Your task to perform on an android device: turn pop-ups off in chrome Image 0: 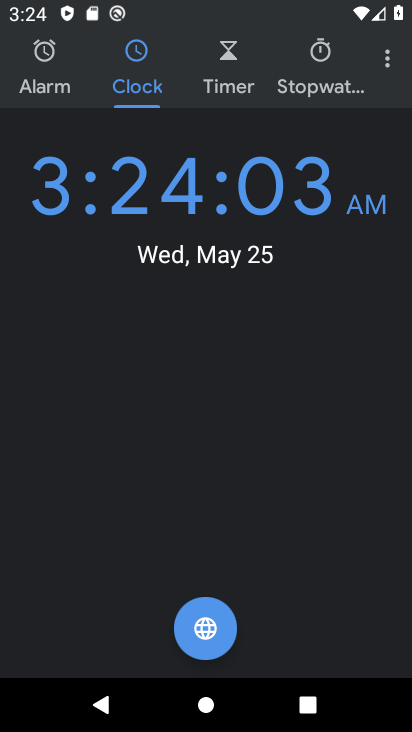
Step 0: press home button
Your task to perform on an android device: turn pop-ups off in chrome Image 1: 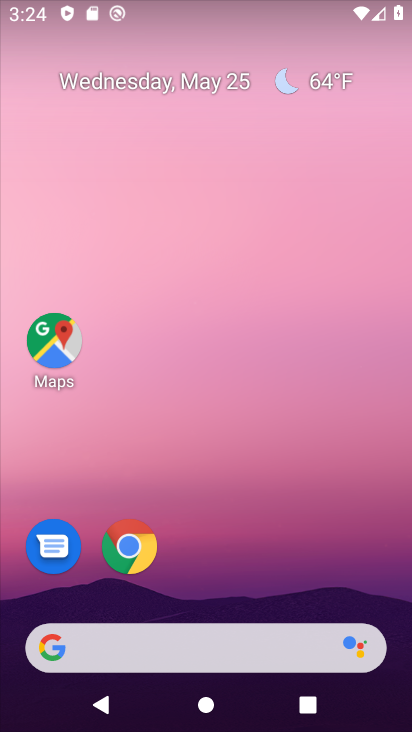
Step 1: click (139, 530)
Your task to perform on an android device: turn pop-ups off in chrome Image 2: 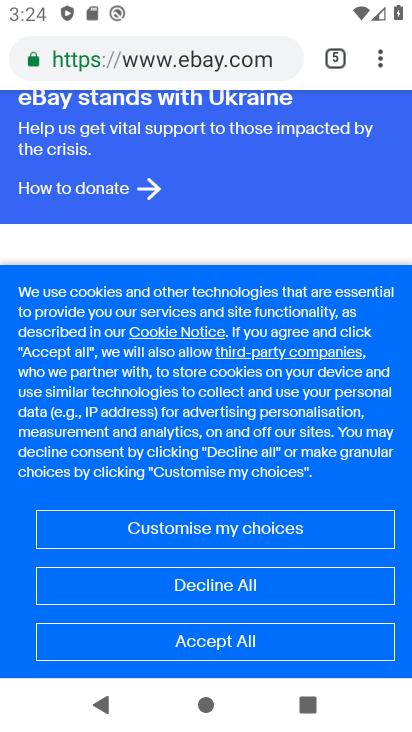
Step 2: click (379, 54)
Your task to perform on an android device: turn pop-ups off in chrome Image 3: 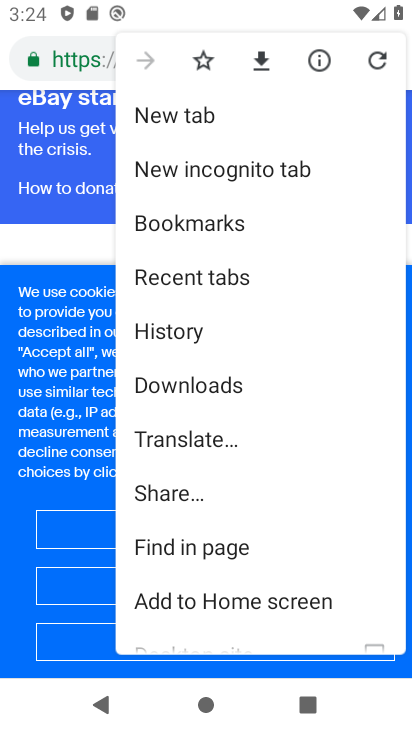
Step 3: drag from (335, 594) to (265, 153)
Your task to perform on an android device: turn pop-ups off in chrome Image 4: 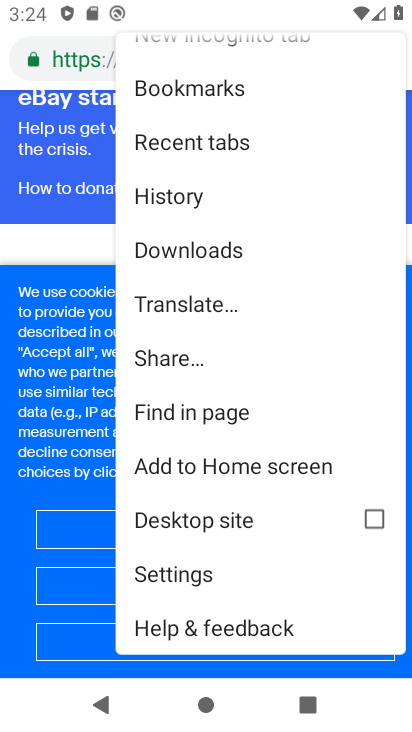
Step 4: click (205, 583)
Your task to perform on an android device: turn pop-ups off in chrome Image 5: 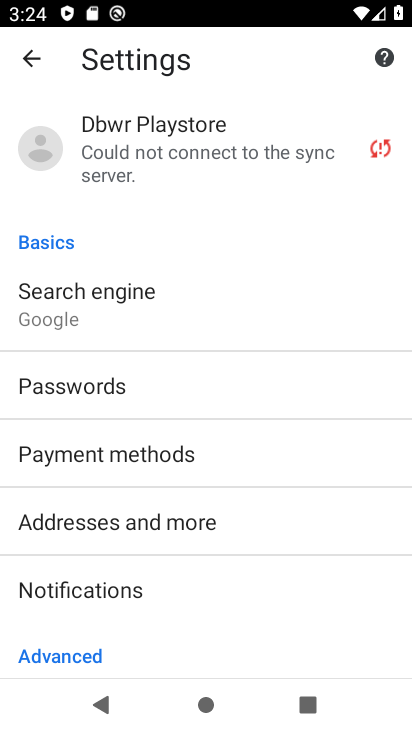
Step 5: drag from (189, 616) to (150, 258)
Your task to perform on an android device: turn pop-ups off in chrome Image 6: 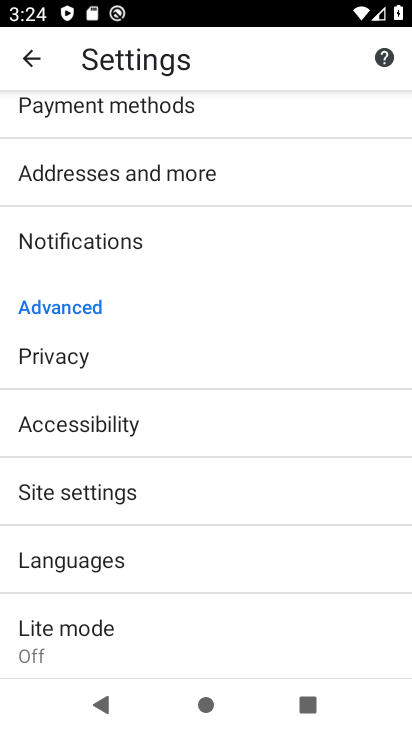
Step 6: click (63, 483)
Your task to perform on an android device: turn pop-ups off in chrome Image 7: 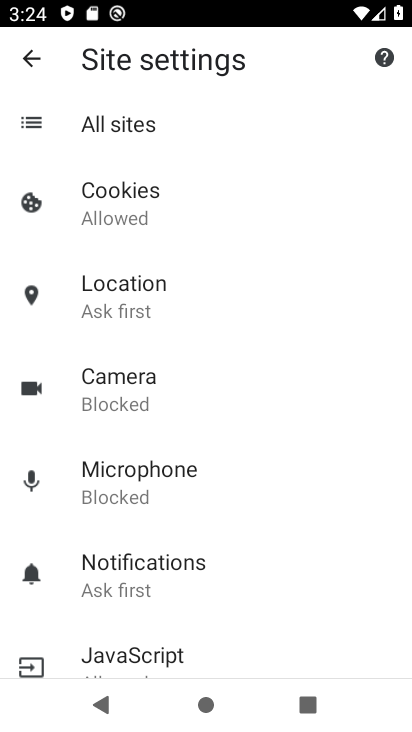
Step 7: drag from (257, 613) to (229, 305)
Your task to perform on an android device: turn pop-ups off in chrome Image 8: 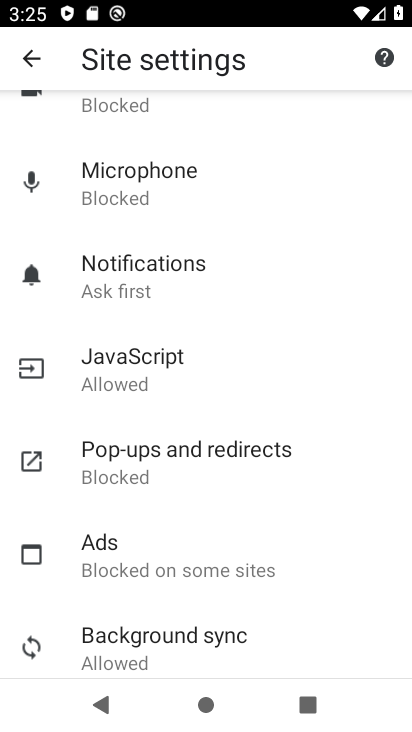
Step 8: click (181, 480)
Your task to perform on an android device: turn pop-ups off in chrome Image 9: 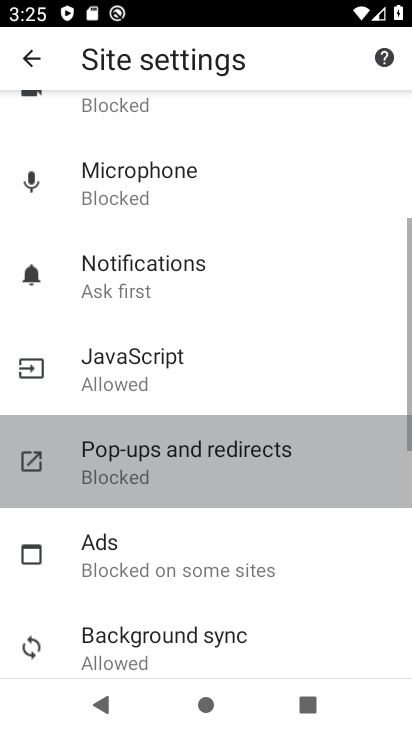
Step 9: click (181, 480)
Your task to perform on an android device: turn pop-ups off in chrome Image 10: 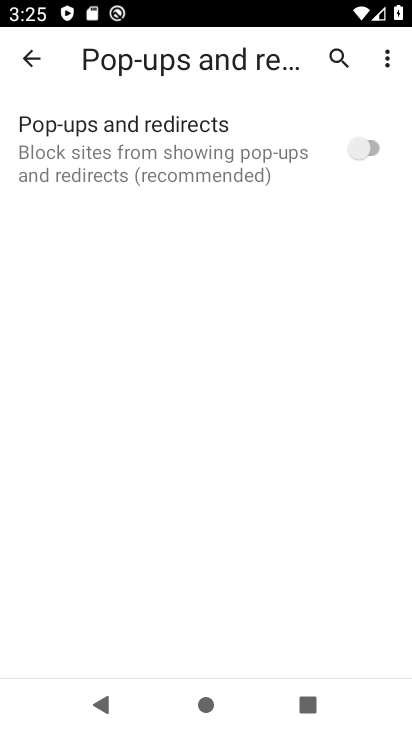
Step 10: task complete